Your task to perform on an android device: refresh tabs in the chrome app Image 0: 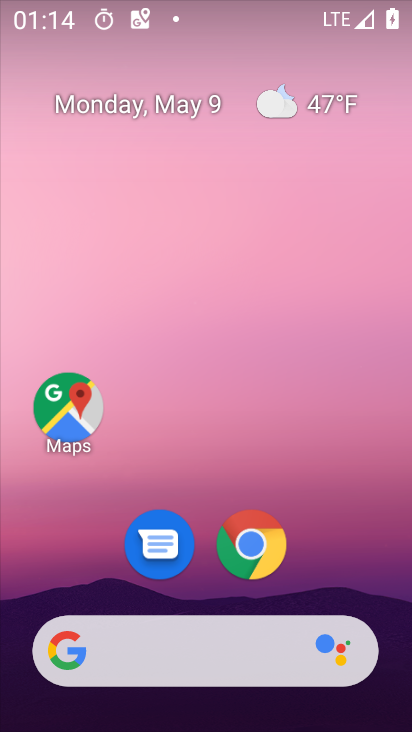
Step 0: click (269, 548)
Your task to perform on an android device: refresh tabs in the chrome app Image 1: 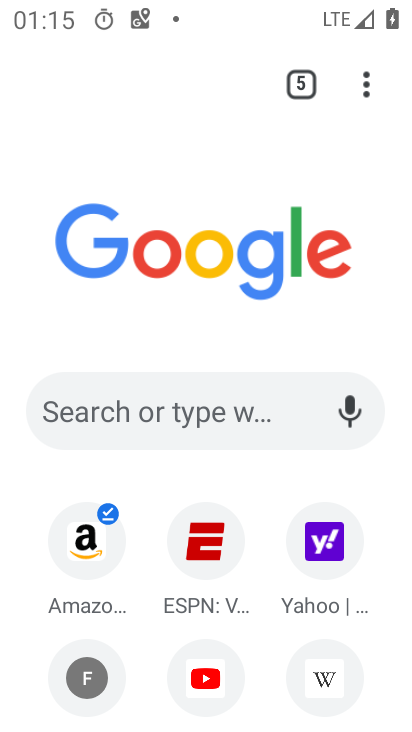
Step 1: task complete